Your task to perform on an android device: turn off airplane mode Image 0: 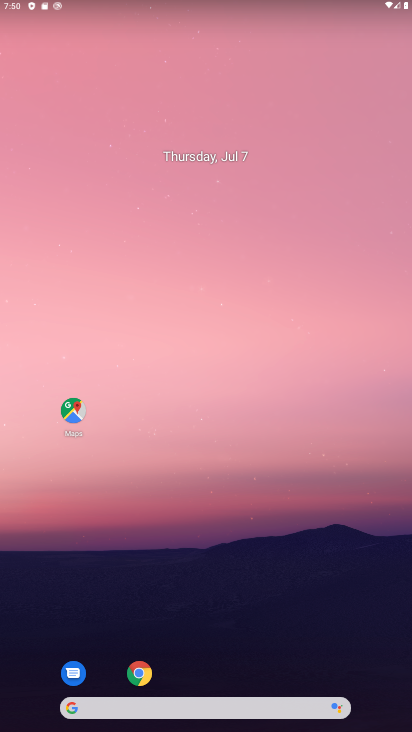
Step 0: drag from (212, 688) to (150, 106)
Your task to perform on an android device: turn off airplane mode Image 1: 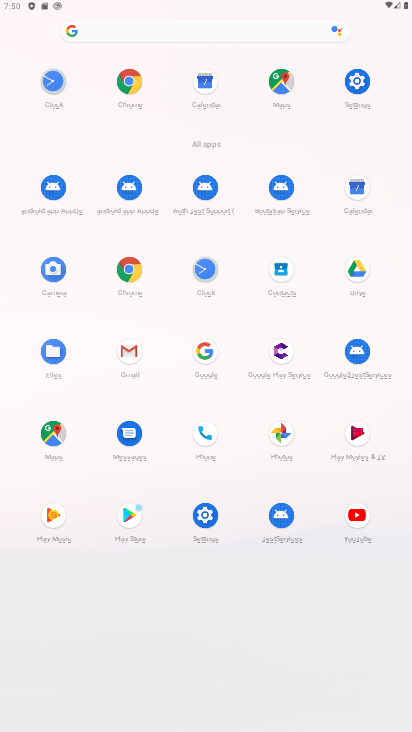
Step 1: click (192, 519)
Your task to perform on an android device: turn off airplane mode Image 2: 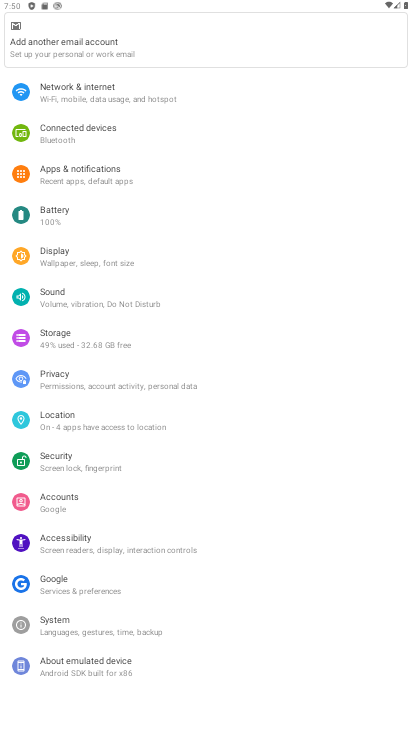
Step 2: click (91, 86)
Your task to perform on an android device: turn off airplane mode Image 3: 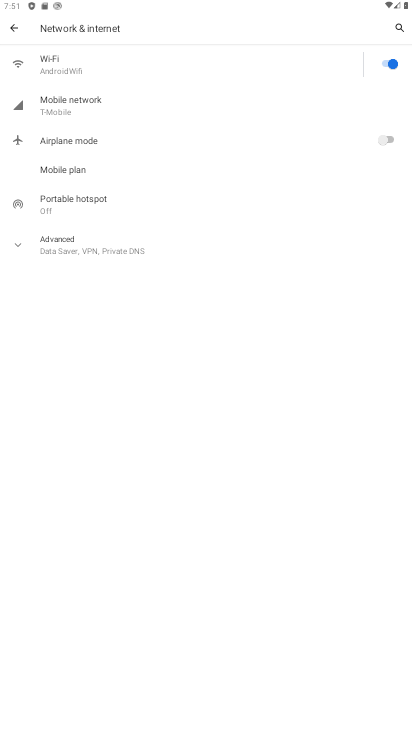
Step 3: task complete